Your task to perform on an android device: Open the calendar app, open the side menu, and click the "Day" option Image 0: 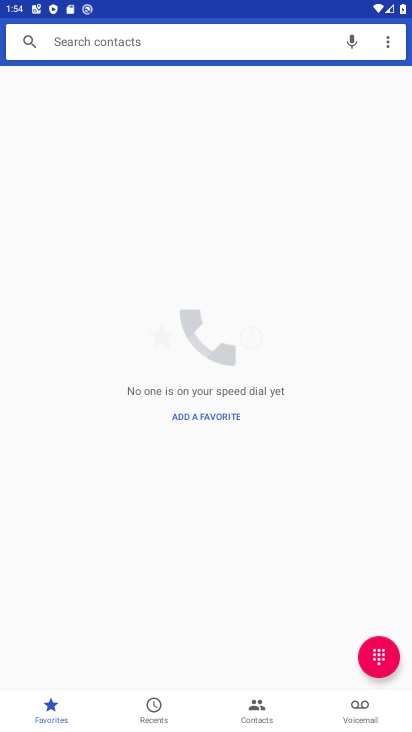
Step 0: press home button
Your task to perform on an android device: Open the calendar app, open the side menu, and click the "Day" option Image 1: 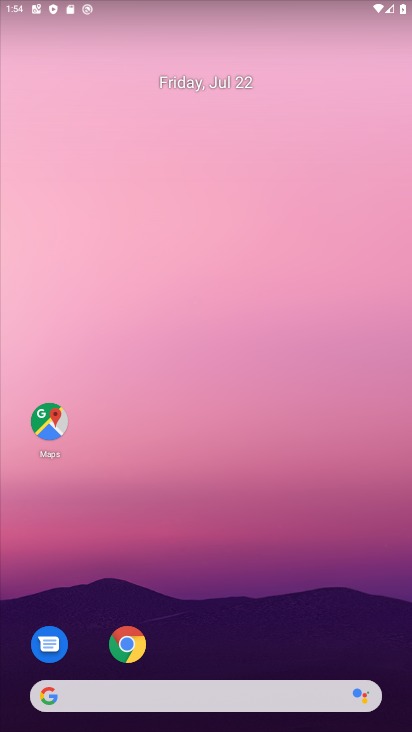
Step 1: drag from (236, 656) to (247, 127)
Your task to perform on an android device: Open the calendar app, open the side menu, and click the "Day" option Image 2: 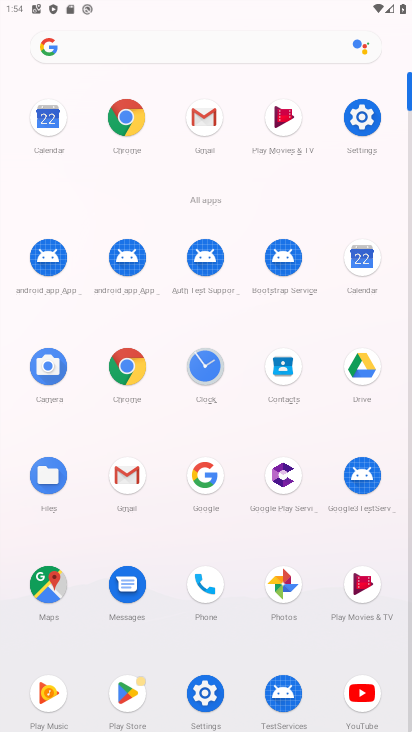
Step 2: click (48, 108)
Your task to perform on an android device: Open the calendar app, open the side menu, and click the "Day" option Image 3: 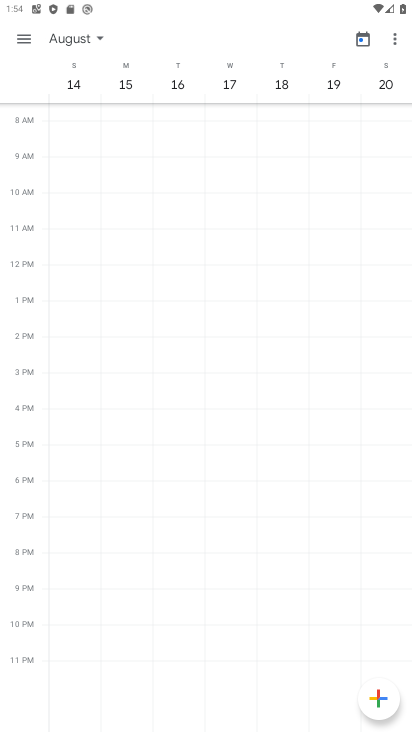
Step 3: click (24, 39)
Your task to perform on an android device: Open the calendar app, open the side menu, and click the "Day" option Image 4: 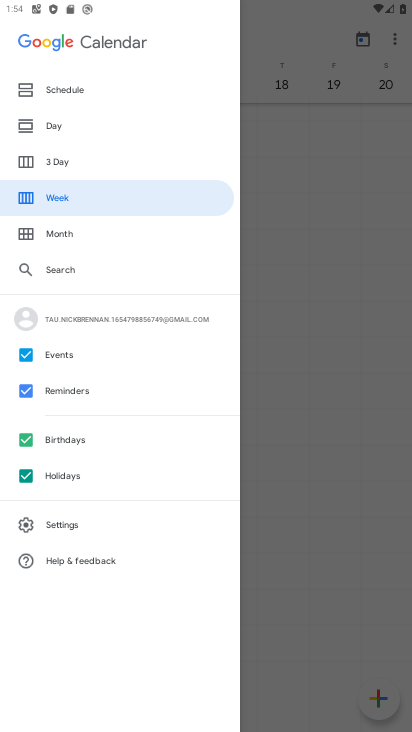
Step 4: click (66, 124)
Your task to perform on an android device: Open the calendar app, open the side menu, and click the "Day" option Image 5: 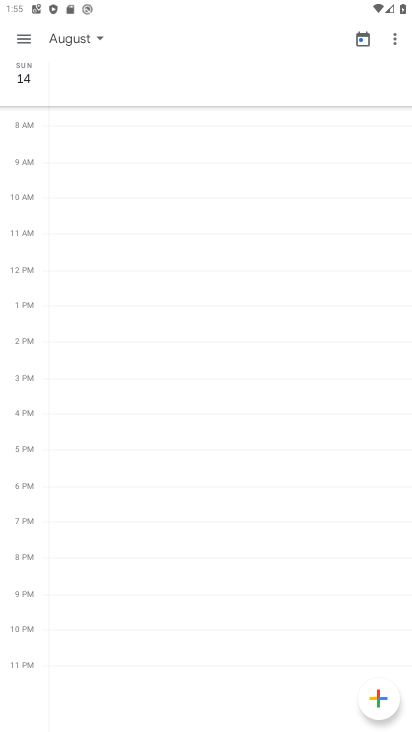
Step 5: task complete